Your task to perform on an android device: open app "eBay: The shopping marketplace" (install if not already installed), go to login, and select forgot password Image 0: 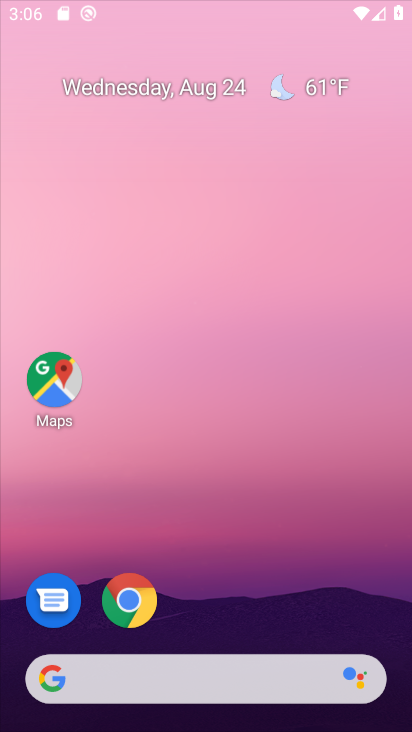
Step 0: click (339, 48)
Your task to perform on an android device: open app "eBay: The shopping marketplace" (install if not already installed), go to login, and select forgot password Image 1: 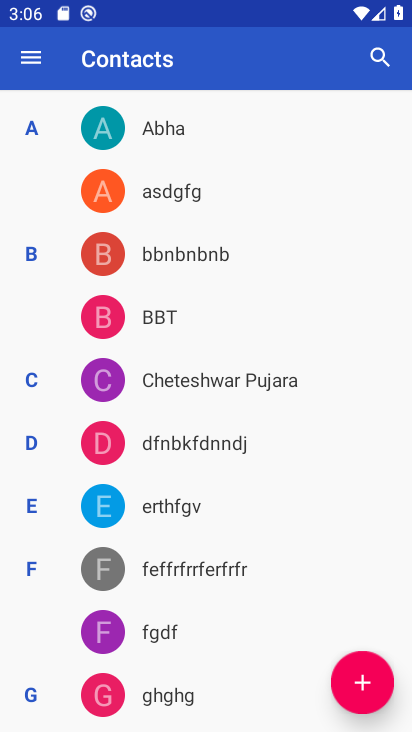
Step 1: press home button
Your task to perform on an android device: open app "eBay: The shopping marketplace" (install if not already installed), go to login, and select forgot password Image 2: 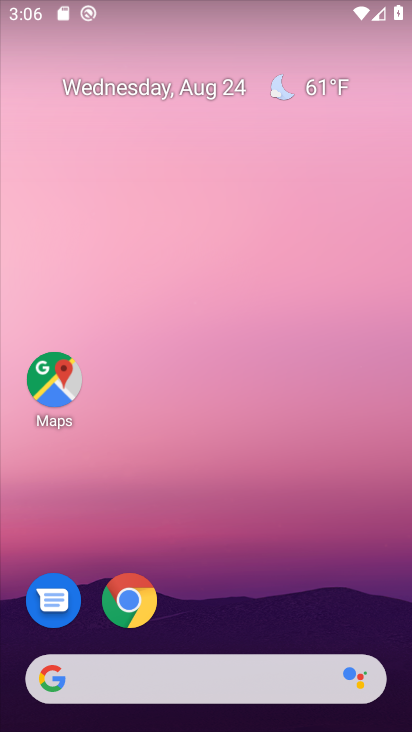
Step 2: drag from (245, 577) to (293, 110)
Your task to perform on an android device: open app "eBay: The shopping marketplace" (install if not already installed), go to login, and select forgot password Image 3: 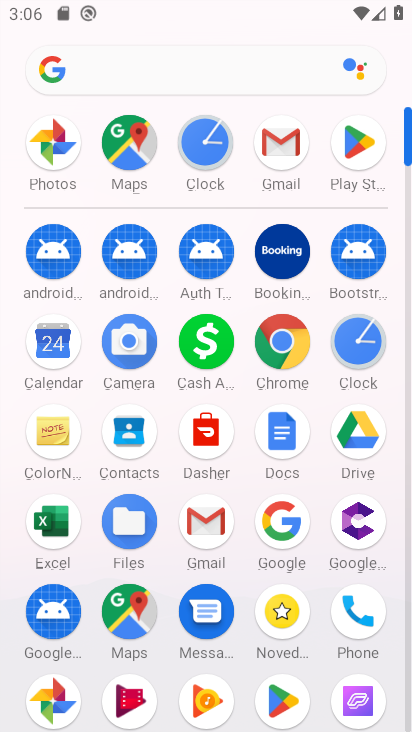
Step 3: click (355, 140)
Your task to perform on an android device: open app "eBay: The shopping marketplace" (install if not already installed), go to login, and select forgot password Image 4: 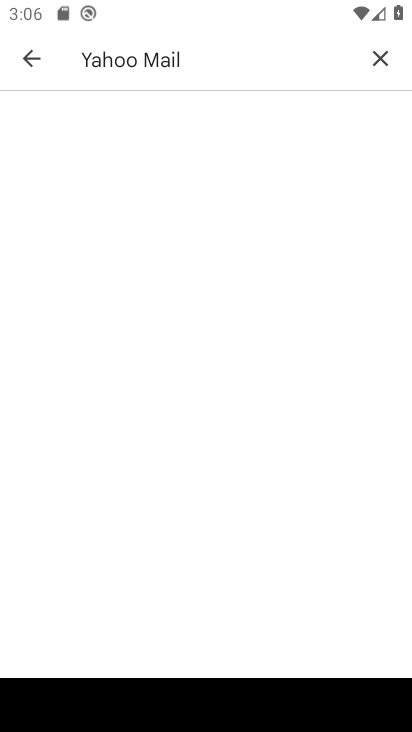
Step 4: click (382, 59)
Your task to perform on an android device: open app "eBay: The shopping marketplace" (install if not already installed), go to login, and select forgot password Image 5: 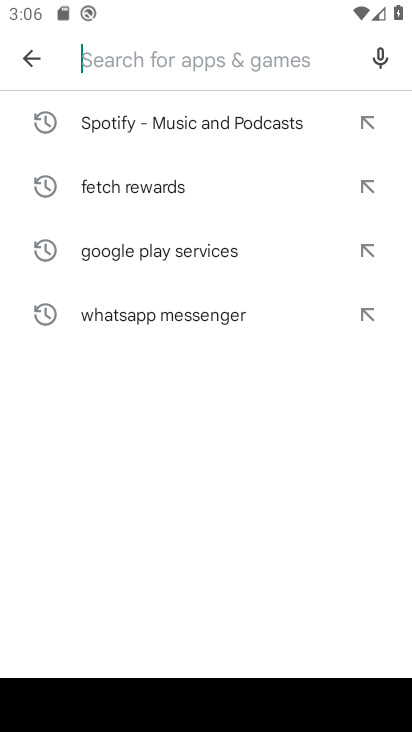
Step 5: click (135, 64)
Your task to perform on an android device: open app "eBay: The shopping marketplace" (install if not already installed), go to login, and select forgot password Image 6: 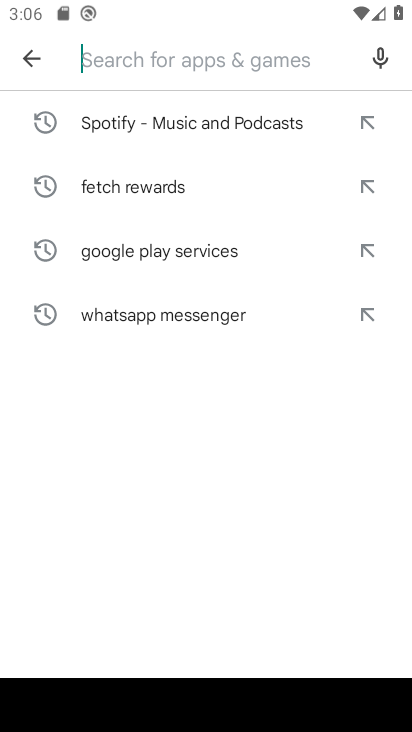
Step 6: type "ebay"
Your task to perform on an android device: open app "eBay: The shopping marketplace" (install if not already installed), go to login, and select forgot password Image 7: 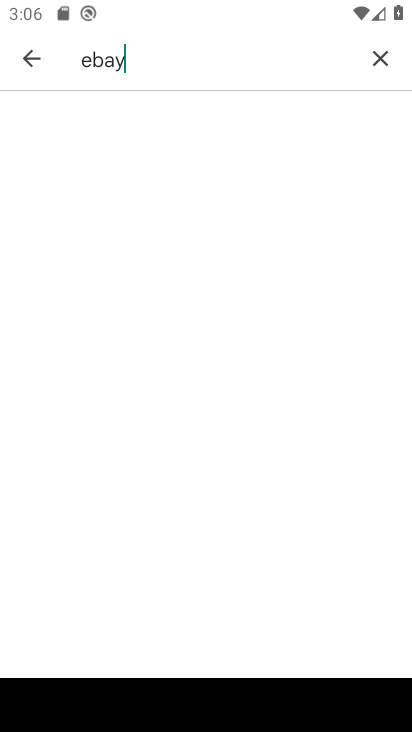
Step 7: click (386, 51)
Your task to perform on an android device: open app "eBay: The shopping marketplace" (install if not already installed), go to login, and select forgot password Image 8: 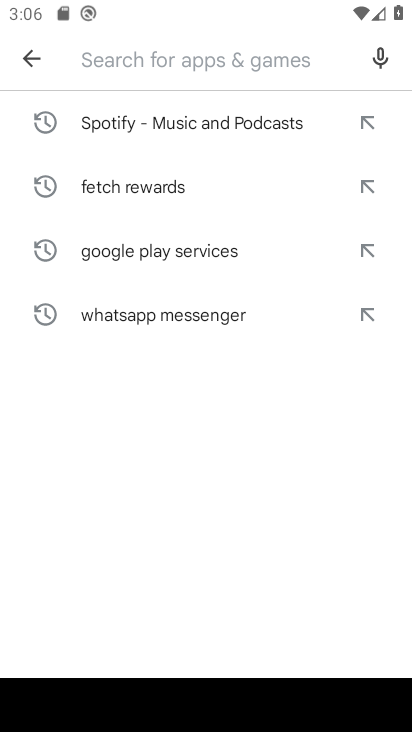
Step 8: type "facebook"
Your task to perform on an android device: open app "eBay: The shopping marketplace" (install if not already installed), go to login, and select forgot password Image 9: 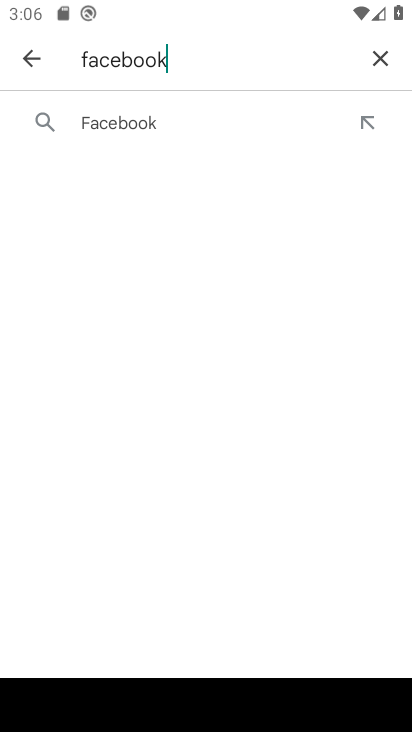
Step 9: click (149, 126)
Your task to perform on an android device: open app "eBay: The shopping marketplace" (install if not already installed), go to login, and select forgot password Image 10: 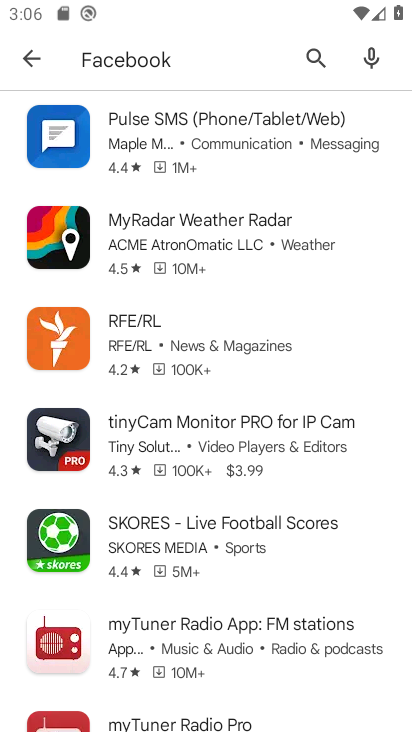
Step 10: click (304, 57)
Your task to perform on an android device: open app "eBay: The shopping marketplace" (install if not already installed), go to login, and select forgot password Image 11: 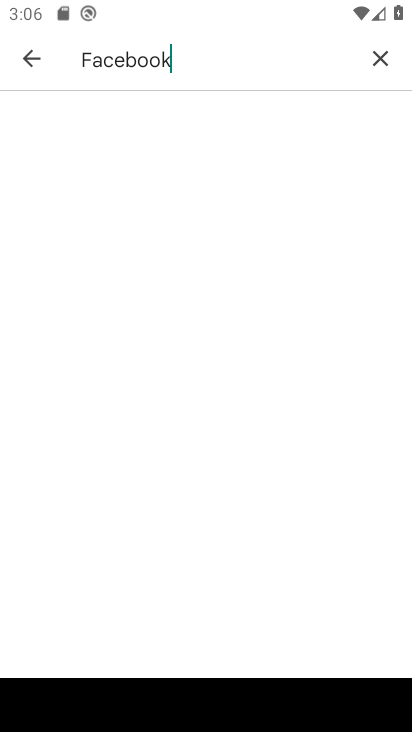
Step 11: click (378, 59)
Your task to perform on an android device: open app "eBay: The shopping marketplace" (install if not already installed), go to login, and select forgot password Image 12: 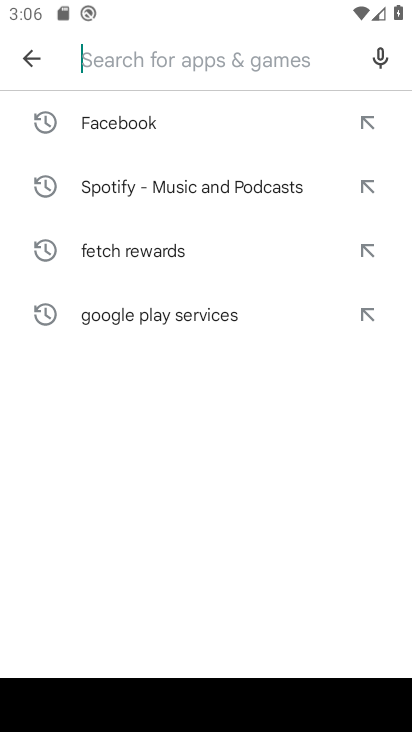
Step 12: type "ebay"
Your task to perform on an android device: open app "eBay: The shopping marketplace" (install if not already installed), go to login, and select forgot password Image 13: 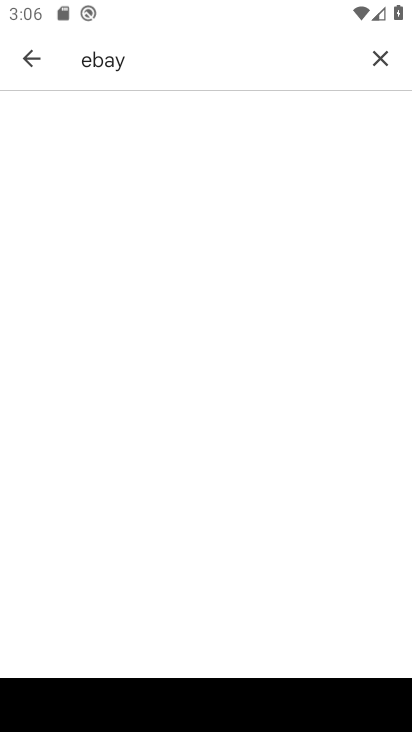
Step 13: task complete